Your task to perform on an android device: check google app version Image 0: 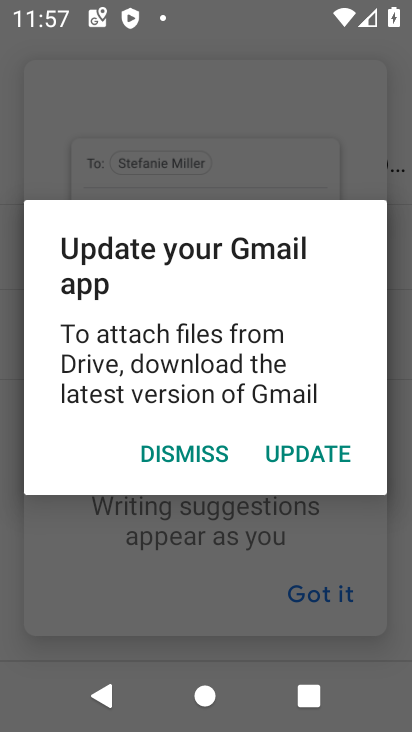
Step 0: press home button
Your task to perform on an android device: check google app version Image 1: 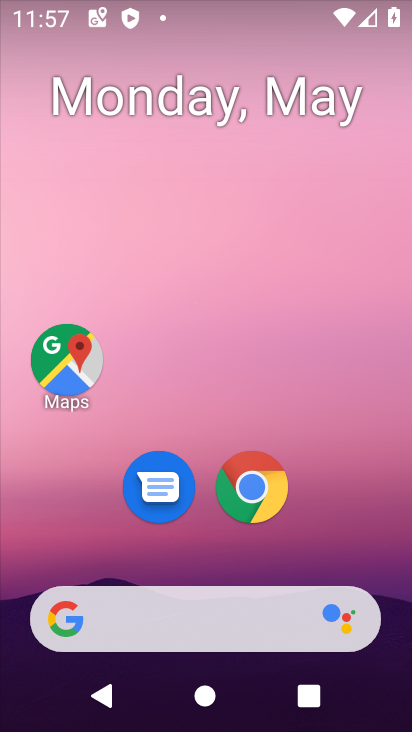
Step 1: drag from (381, 552) to (389, 223)
Your task to perform on an android device: check google app version Image 2: 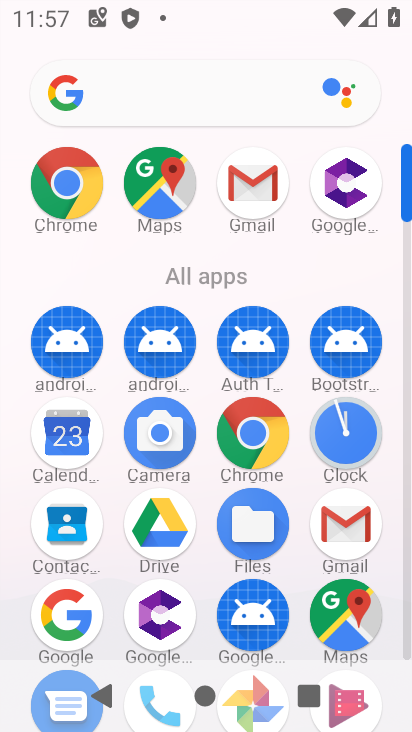
Step 2: drag from (392, 560) to (386, 265)
Your task to perform on an android device: check google app version Image 3: 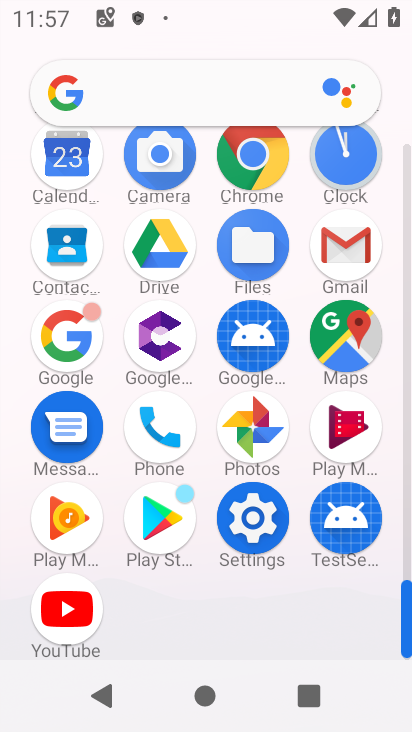
Step 3: click (54, 347)
Your task to perform on an android device: check google app version Image 4: 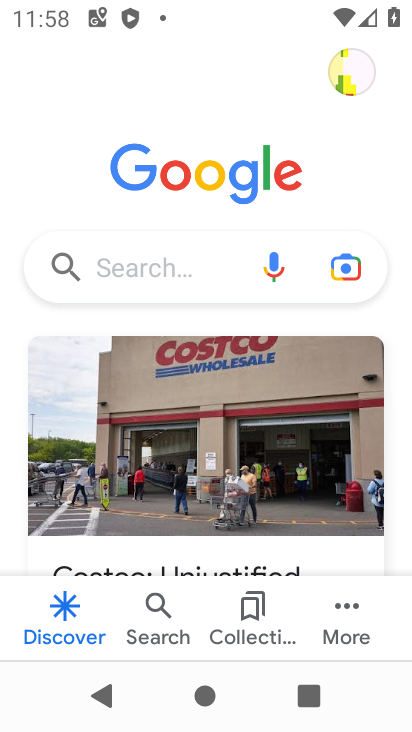
Step 4: click (360, 638)
Your task to perform on an android device: check google app version Image 5: 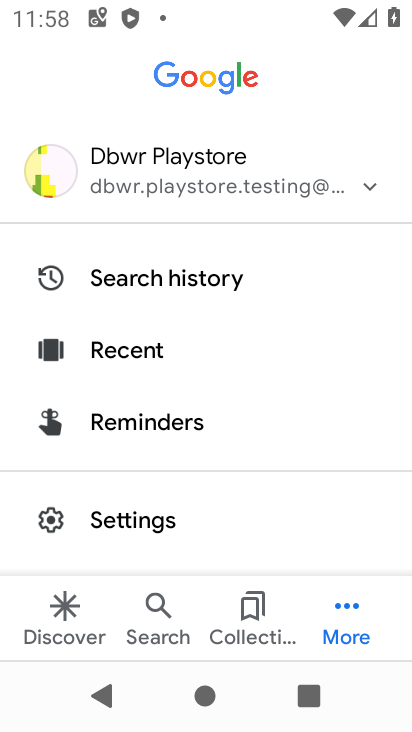
Step 5: click (183, 529)
Your task to perform on an android device: check google app version Image 6: 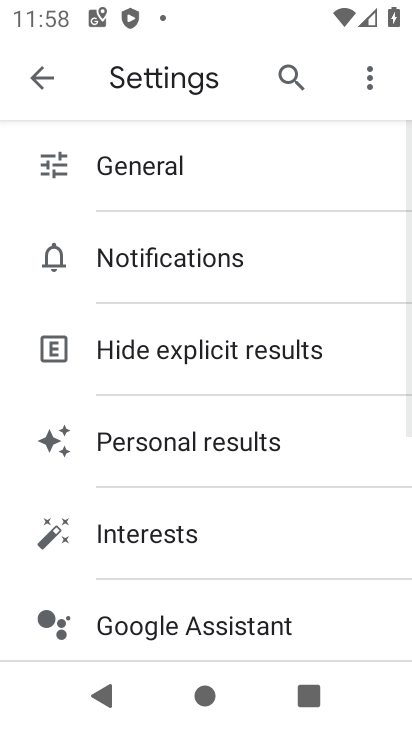
Step 6: drag from (269, 547) to (282, 422)
Your task to perform on an android device: check google app version Image 7: 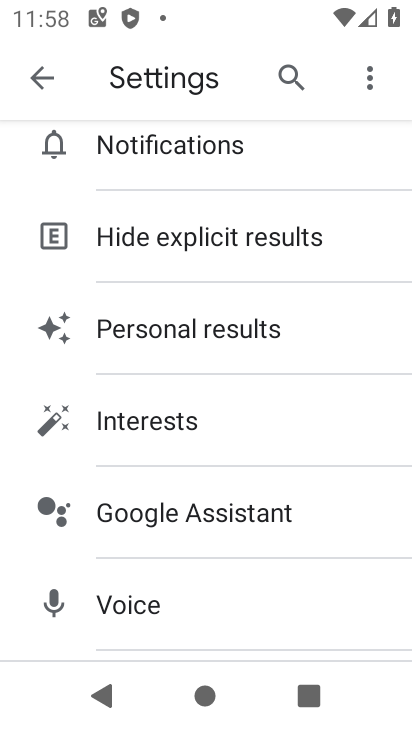
Step 7: drag from (333, 603) to (350, 495)
Your task to perform on an android device: check google app version Image 8: 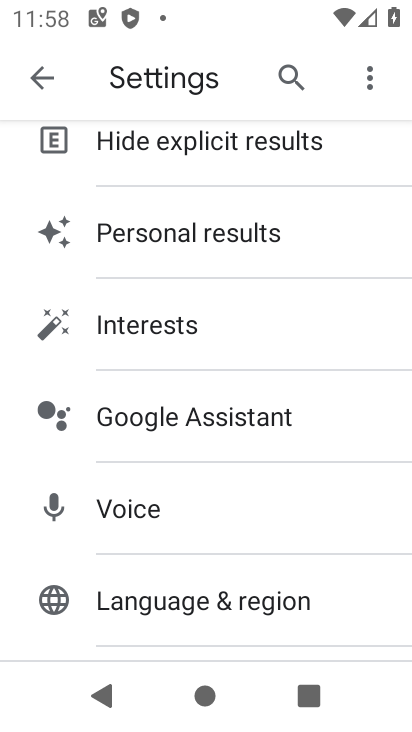
Step 8: drag from (345, 613) to (357, 465)
Your task to perform on an android device: check google app version Image 9: 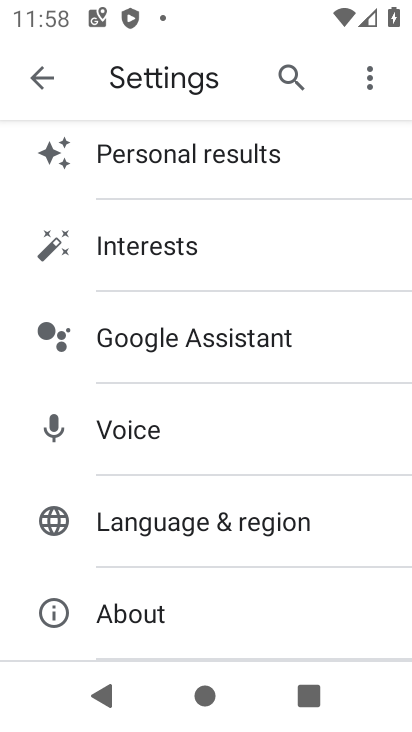
Step 9: click (151, 616)
Your task to perform on an android device: check google app version Image 10: 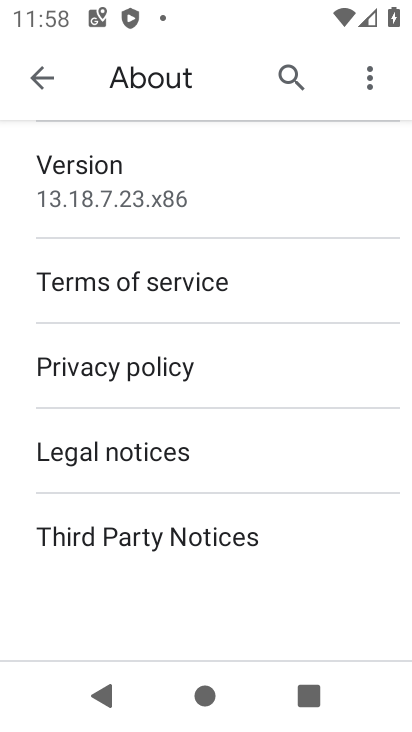
Step 10: task complete